Your task to perform on an android device: turn on translation in the chrome app Image 0: 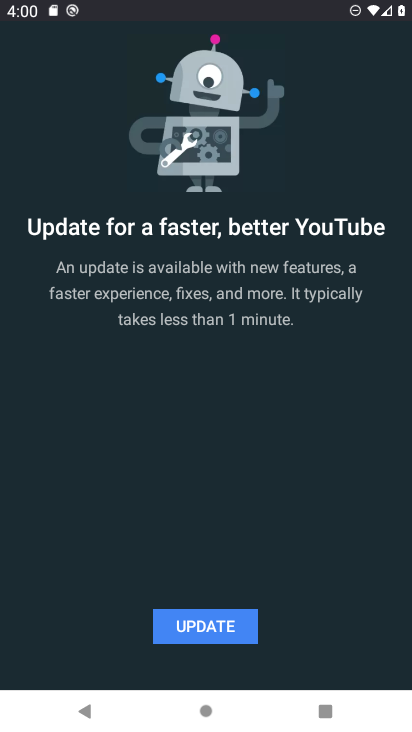
Step 0: press home button
Your task to perform on an android device: turn on translation in the chrome app Image 1: 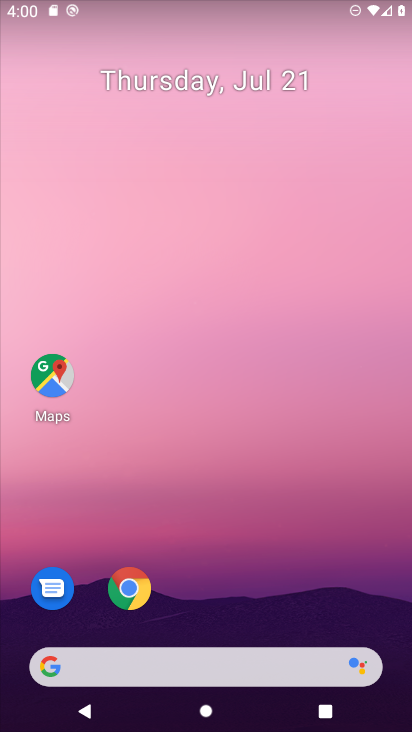
Step 1: drag from (135, 627) to (271, 20)
Your task to perform on an android device: turn on translation in the chrome app Image 2: 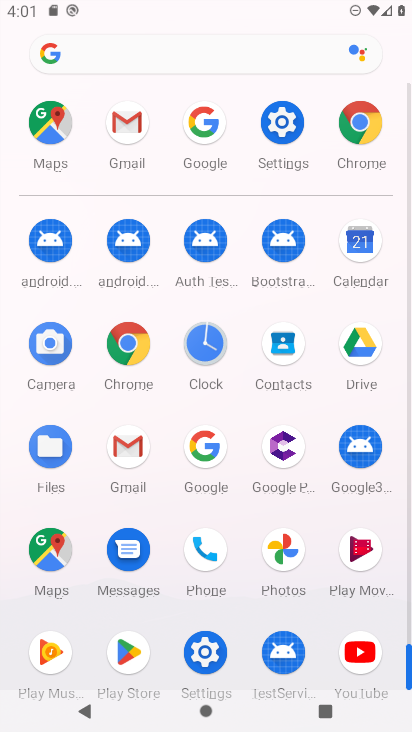
Step 2: click (349, 153)
Your task to perform on an android device: turn on translation in the chrome app Image 3: 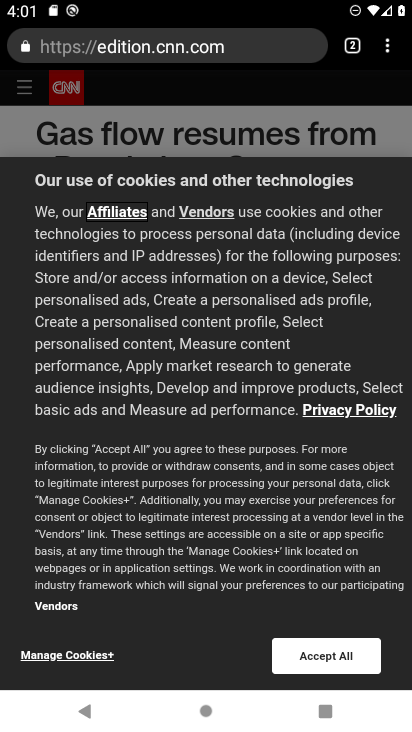
Step 3: click (394, 47)
Your task to perform on an android device: turn on translation in the chrome app Image 4: 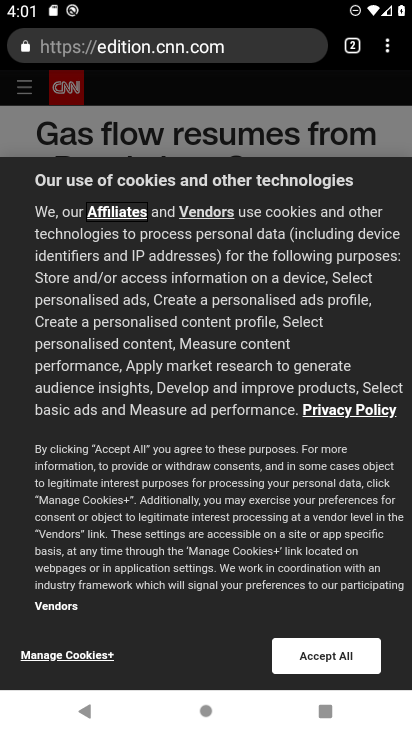
Step 4: click (390, 79)
Your task to perform on an android device: turn on translation in the chrome app Image 5: 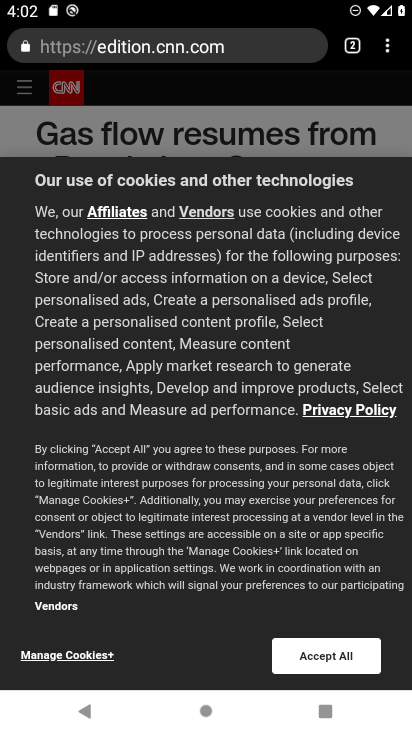
Step 5: click (388, 48)
Your task to perform on an android device: turn on translation in the chrome app Image 6: 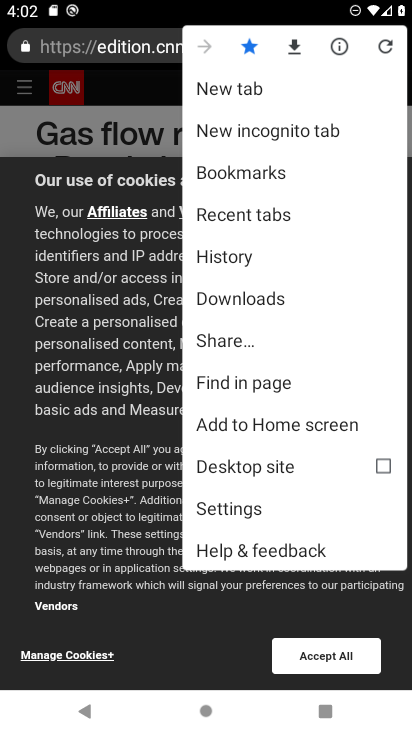
Step 6: task complete